Your task to perform on an android device: check data usage Image 0: 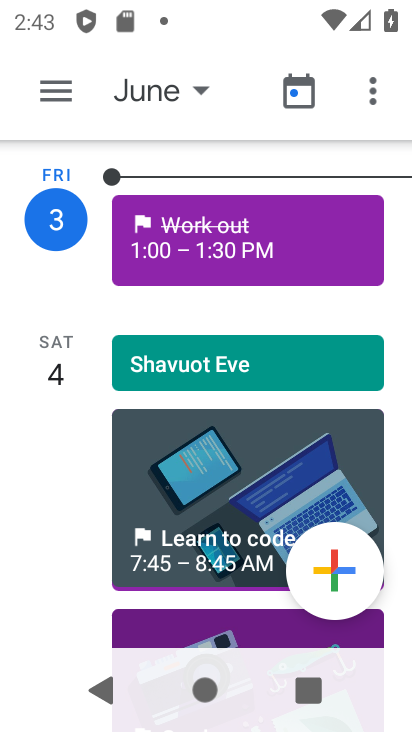
Step 0: press home button
Your task to perform on an android device: check data usage Image 1: 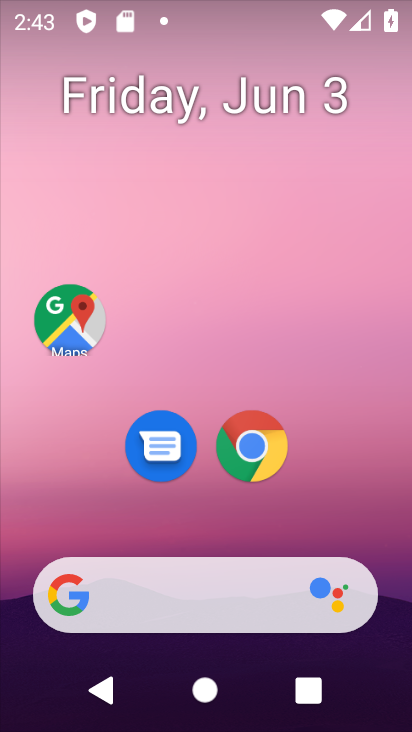
Step 1: drag from (352, 505) to (299, 63)
Your task to perform on an android device: check data usage Image 2: 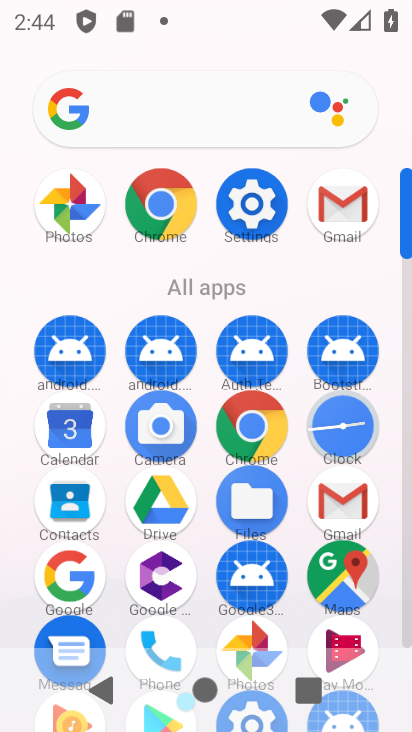
Step 2: click (254, 182)
Your task to perform on an android device: check data usage Image 3: 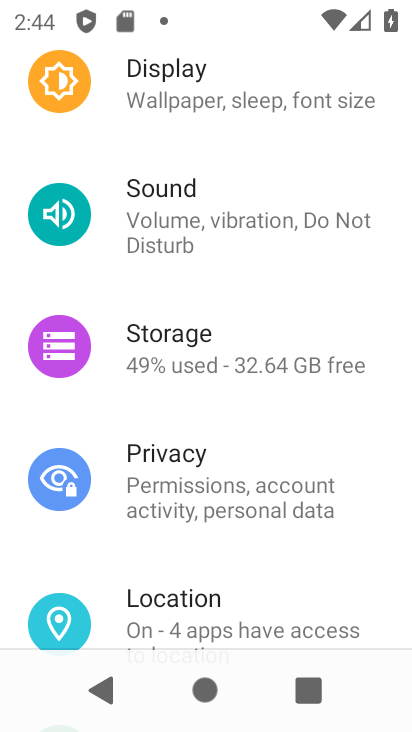
Step 3: drag from (154, 232) to (126, 388)
Your task to perform on an android device: check data usage Image 4: 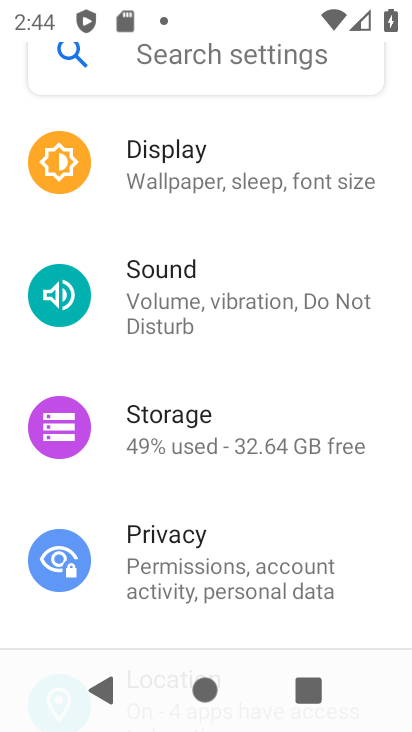
Step 4: drag from (147, 212) to (132, 365)
Your task to perform on an android device: check data usage Image 5: 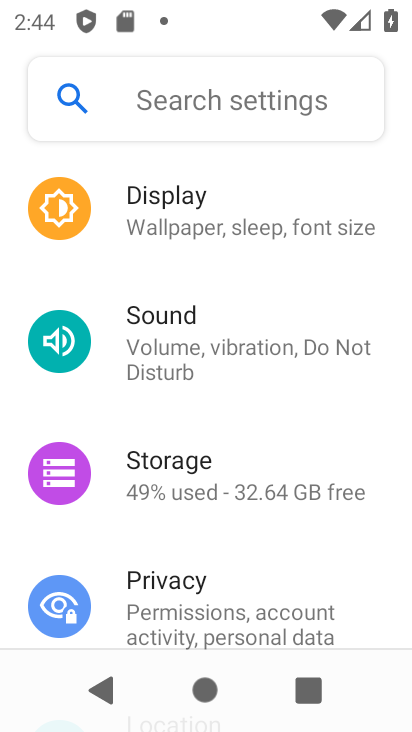
Step 5: drag from (162, 298) to (183, 543)
Your task to perform on an android device: check data usage Image 6: 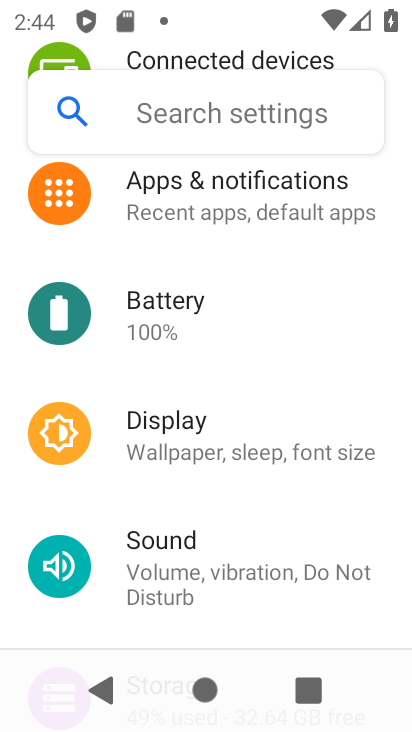
Step 6: drag from (181, 367) to (144, 558)
Your task to perform on an android device: check data usage Image 7: 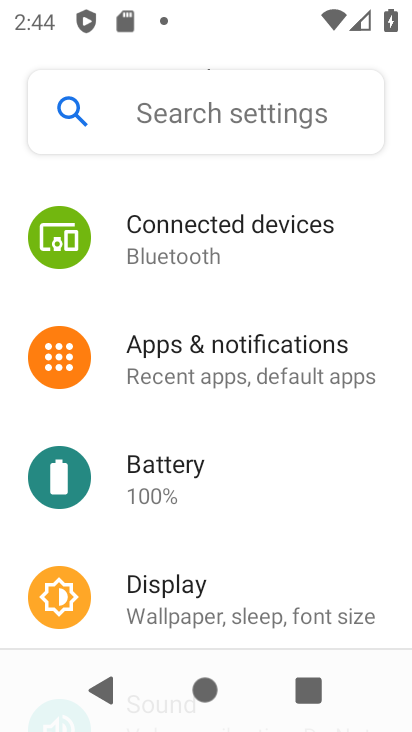
Step 7: drag from (201, 478) to (175, 241)
Your task to perform on an android device: check data usage Image 8: 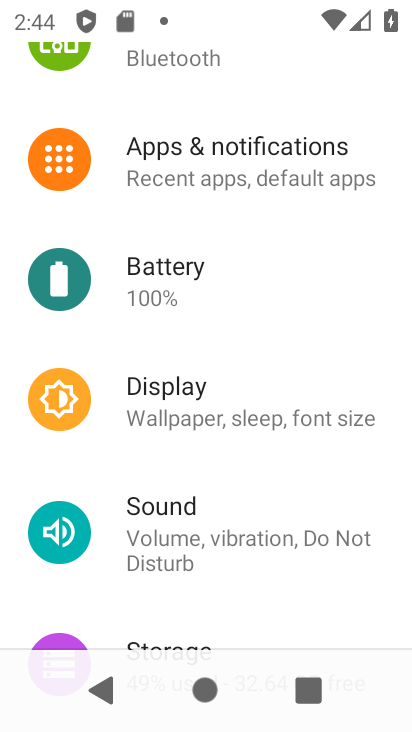
Step 8: drag from (233, 554) to (248, 383)
Your task to perform on an android device: check data usage Image 9: 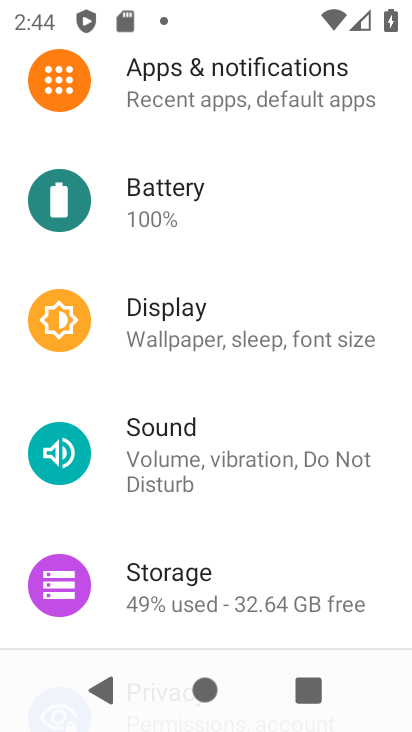
Step 9: click (236, 413)
Your task to perform on an android device: check data usage Image 10: 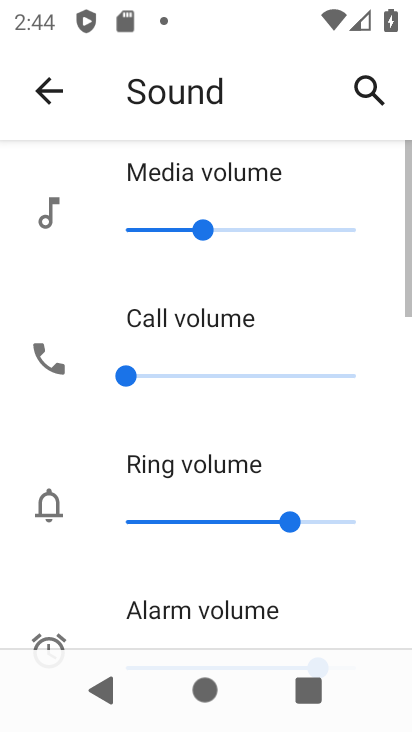
Step 10: task complete